Your task to perform on an android device: open app "ZOOM Cloud Meetings" Image 0: 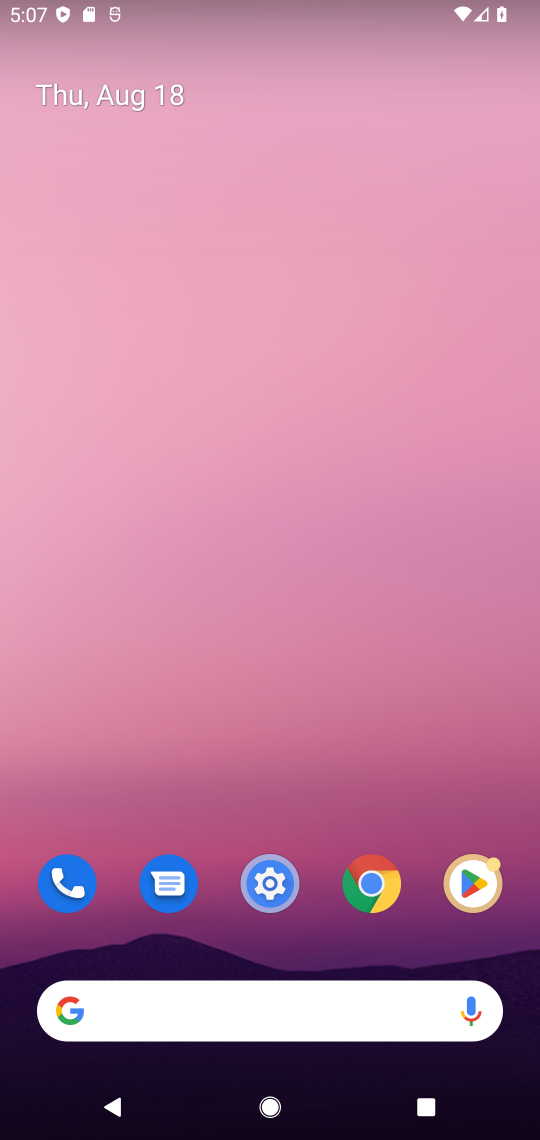
Step 0: drag from (266, 1047) to (278, 182)
Your task to perform on an android device: open app "ZOOM Cloud Meetings" Image 1: 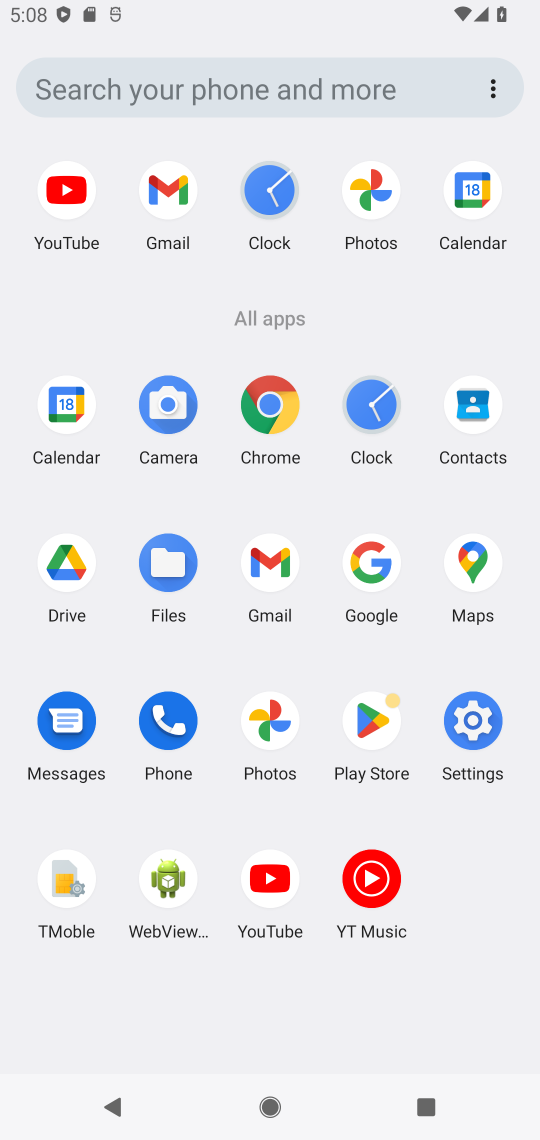
Step 1: task complete